Your task to perform on an android device: Go to CNN.com Image 0: 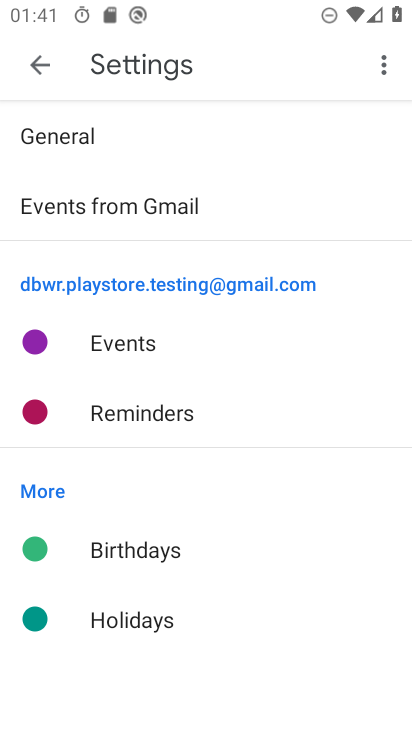
Step 0: press home button
Your task to perform on an android device: Go to CNN.com Image 1: 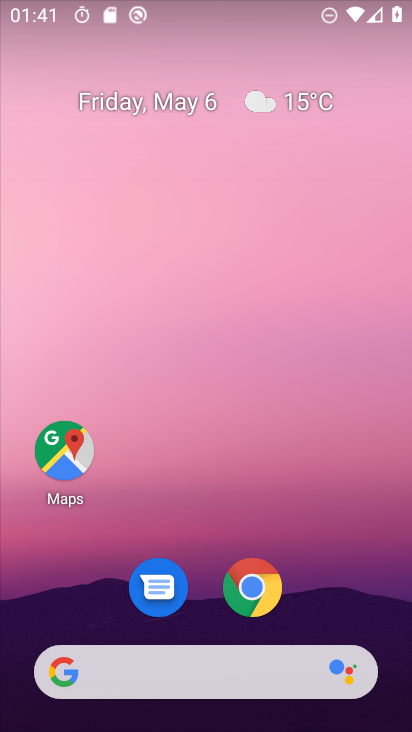
Step 1: drag from (297, 269) to (307, 113)
Your task to perform on an android device: Go to CNN.com Image 2: 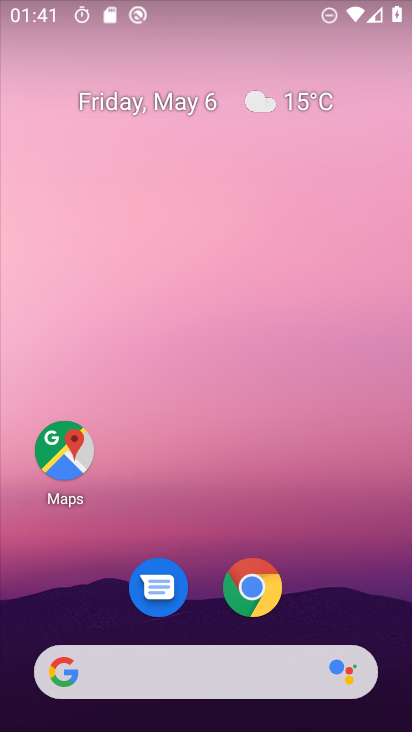
Step 2: drag from (373, 609) to (323, 232)
Your task to perform on an android device: Go to CNN.com Image 3: 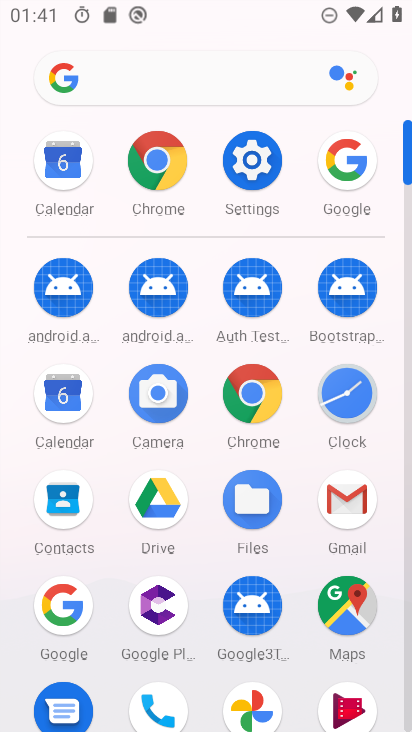
Step 3: click (246, 399)
Your task to perform on an android device: Go to CNN.com Image 4: 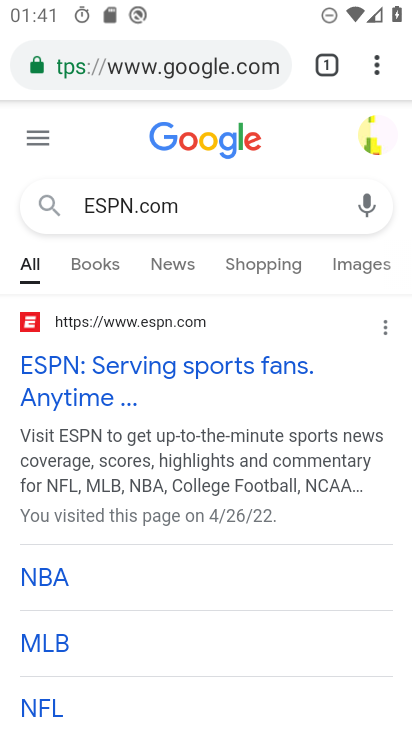
Step 4: click (280, 63)
Your task to perform on an android device: Go to CNN.com Image 5: 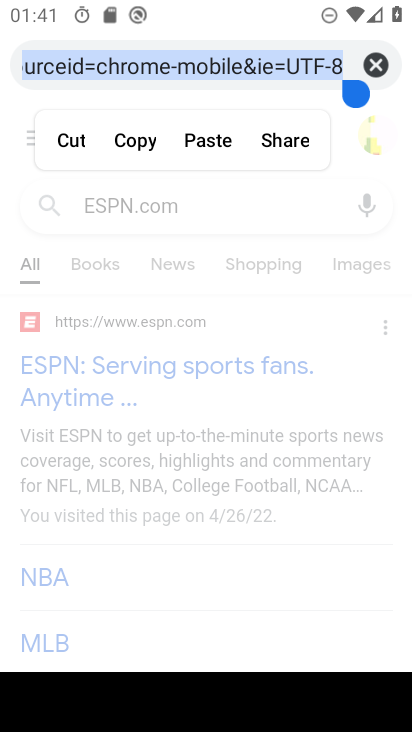
Step 5: click (369, 62)
Your task to perform on an android device: Go to CNN.com Image 6: 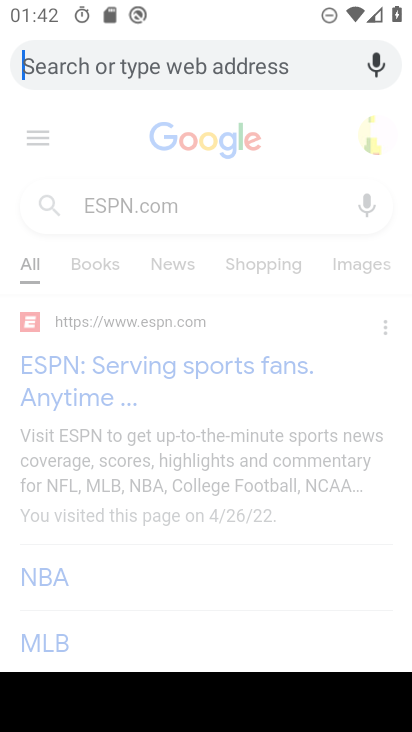
Step 6: type "CNN.com"
Your task to perform on an android device: Go to CNN.com Image 7: 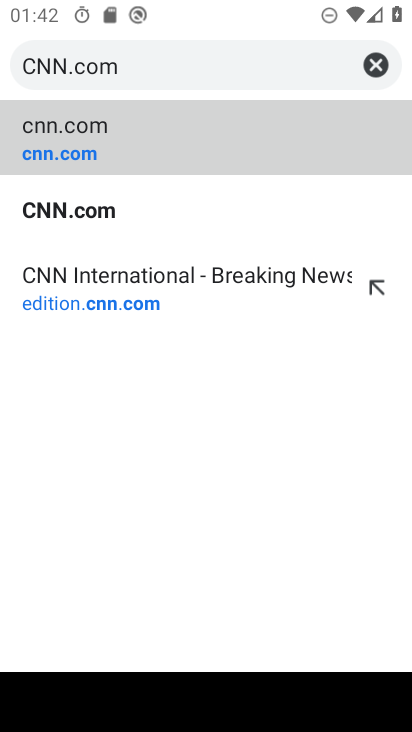
Step 7: click (68, 207)
Your task to perform on an android device: Go to CNN.com Image 8: 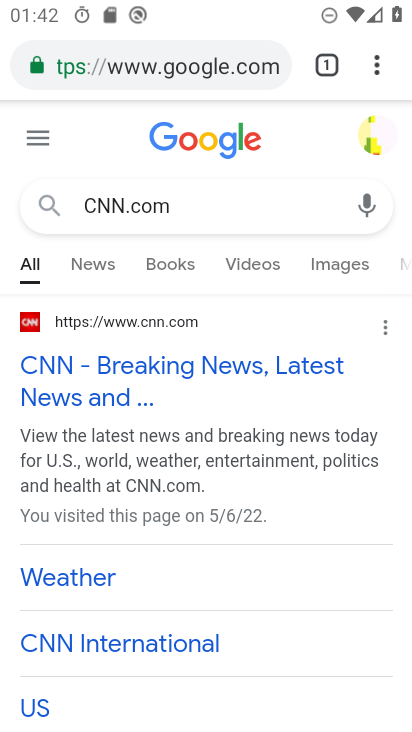
Step 8: task complete